Your task to perform on an android device: turn off translation in the chrome app Image 0: 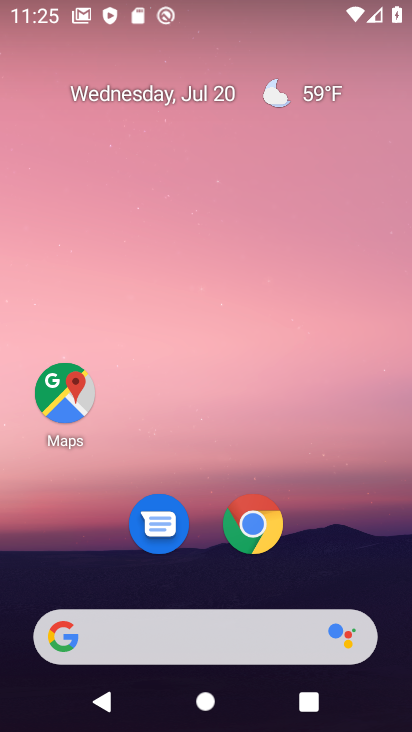
Step 0: press home button
Your task to perform on an android device: turn off translation in the chrome app Image 1: 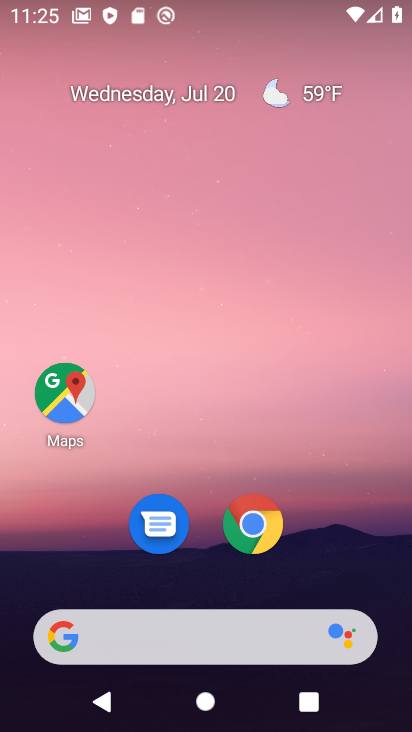
Step 1: click (257, 529)
Your task to perform on an android device: turn off translation in the chrome app Image 2: 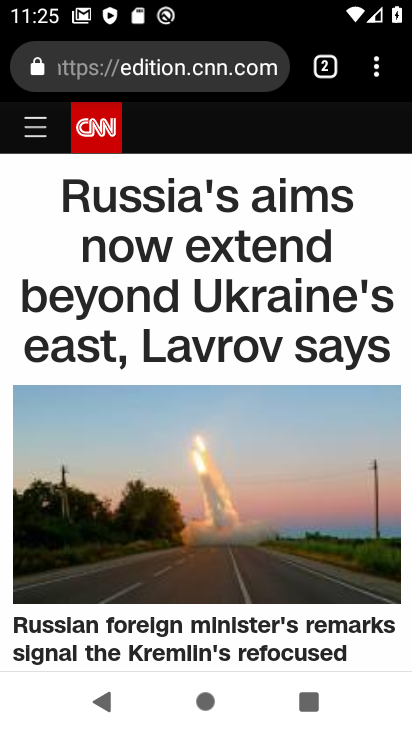
Step 2: drag from (376, 63) to (219, 524)
Your task to perform on an android device: turn off translation in the chrome app Image 3: 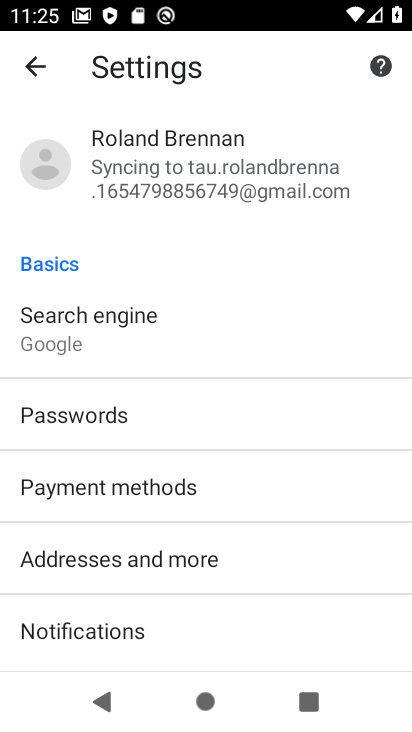
Step 3: drag from (189, 585) to (244, 122)
Your task to perform on an android device: turn off translation in the chrome app Image 4: 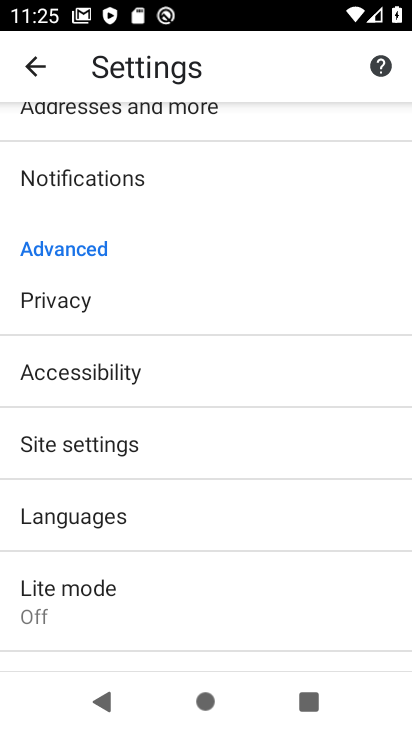
Step 4: click (113, 517)
Your task to perform on an android device: turn off translation in the chrome app Image 5: 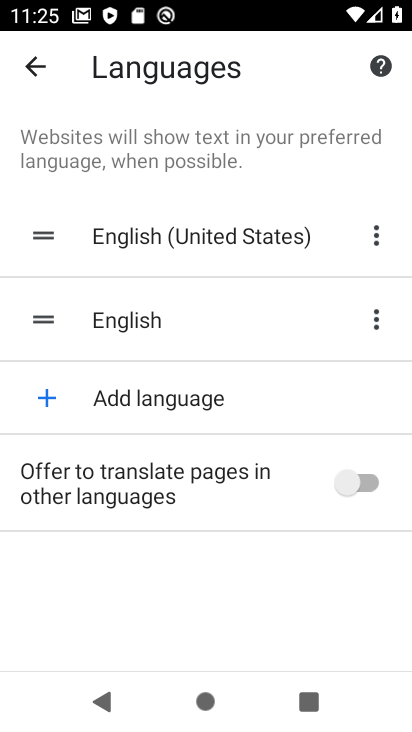
Step 5: task complete